Your task to perform on an android device: Open settings Image 0: 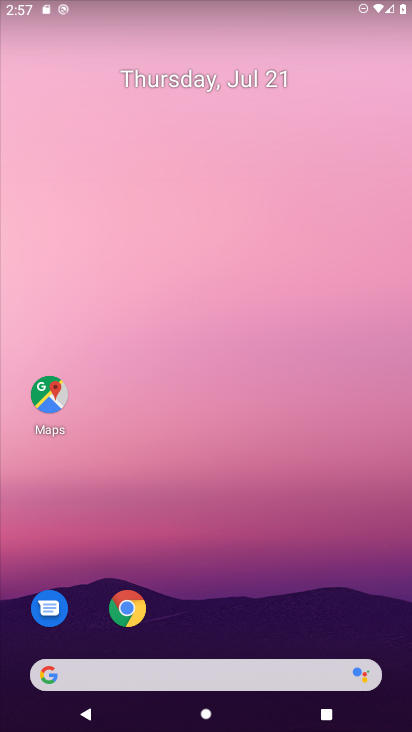
Step 0: drag from (227, 618) to (237, 120)
Your task to perform on an android device: Open settings Image 1: 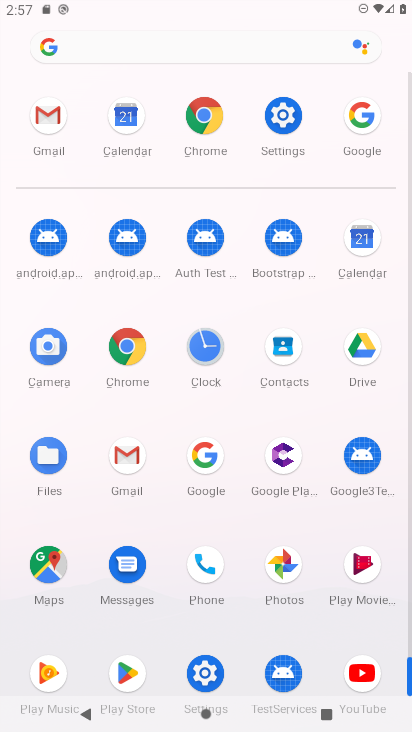
Step 1: click (283, 133)
Your task to perform on an android device: Open settings Image 2: 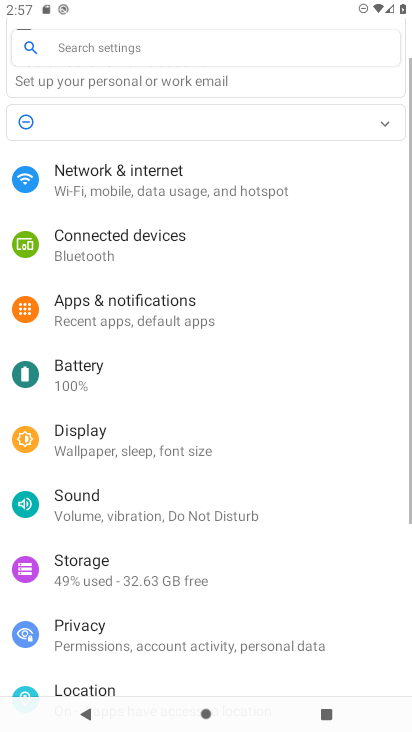
Step 2: task complete